Your task to perform on an android device: open a new tab in the chrome app Image 0: 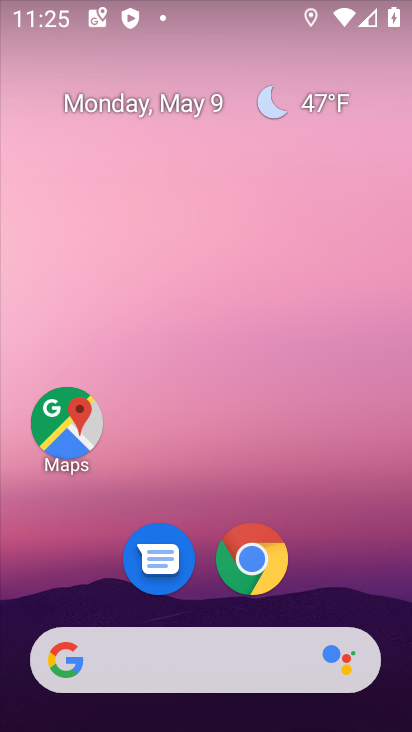
Step 0: click (335, 569)
Your task to perform on an android device: open a new tab in the chrome app Image 1: 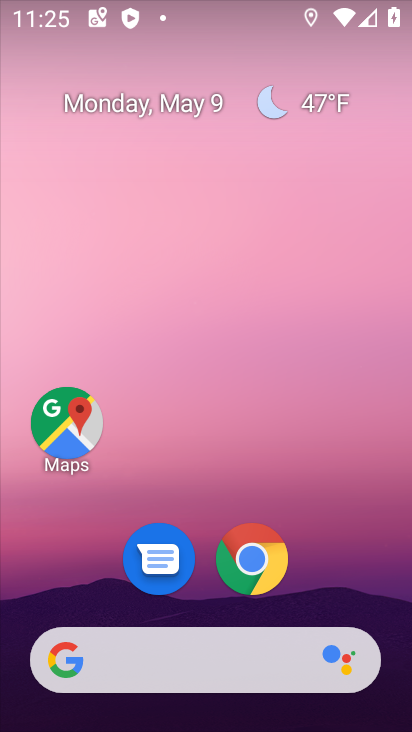
Step 1: click (271, 547)
Your task to perform on an android device: open a new tab in the chrome app Image 2: 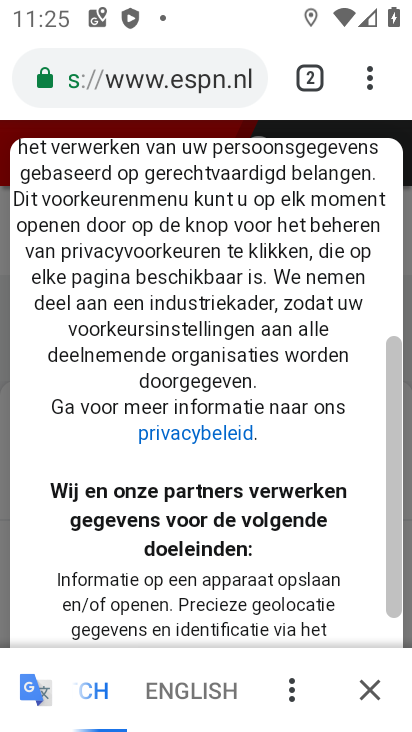
Step 2: task complete